Your task to perform on an android device: Turn on the flashlight Image 0: 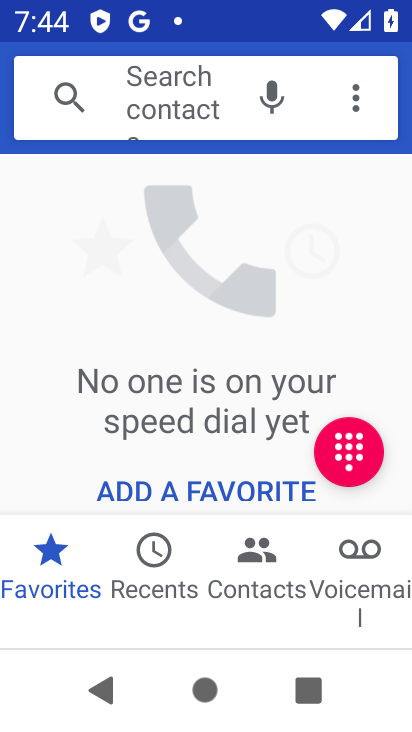
Step 0: press home button
Your task to perform on an android device: Turn on the flashlight Image 1: 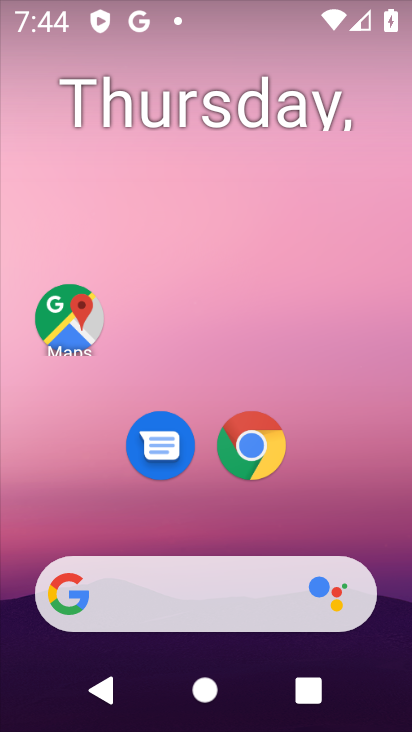
Step 1: drag from (372, 532) to (345, 213)
Your task to perform on an android device: Turn on the flashlight Image 2: 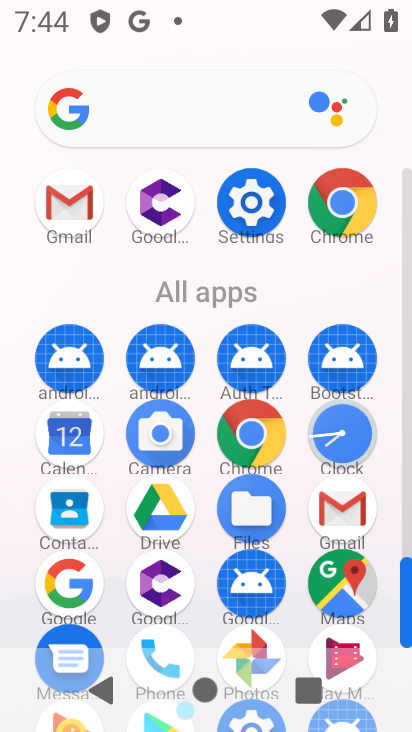
Step 2: click (259, 212)
Your task to perform on an android device: Turn on the flashlight Image 3: 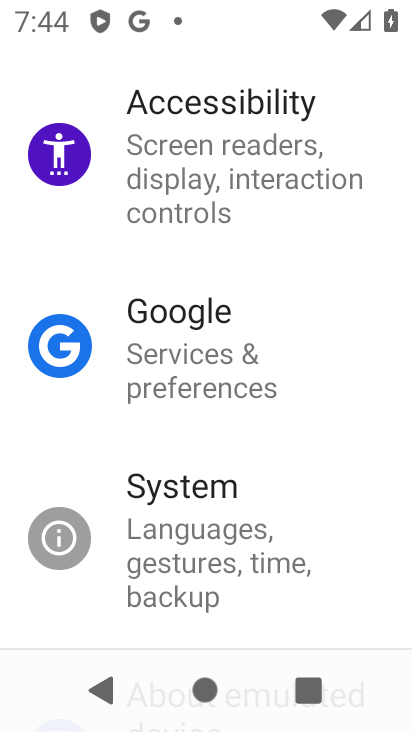
Step 3: drag from (283, 185) to (281, 557)
Your task to perform on an android device: Turn on the flashlight Image 4: 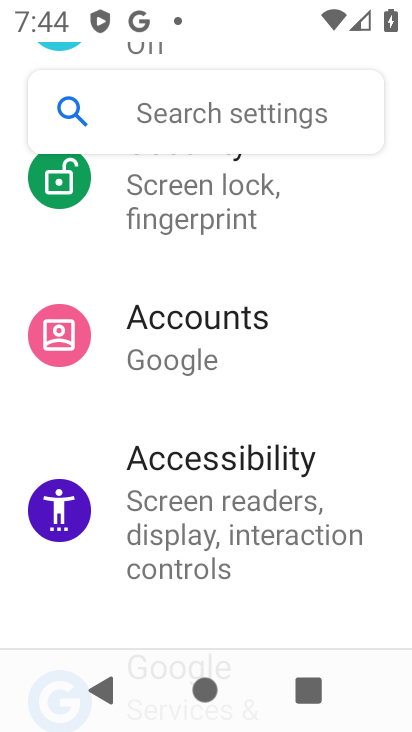
Step 4: click (223, 121)
Your task to perform on an android device: Turn on the flashlight Image 5: 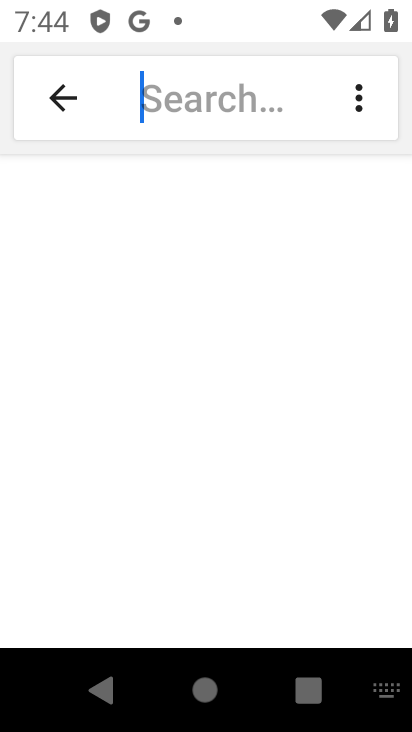
Step 5: type "flashlight"
Your task to perform on an android device: Turn on the flashlight Image 6: 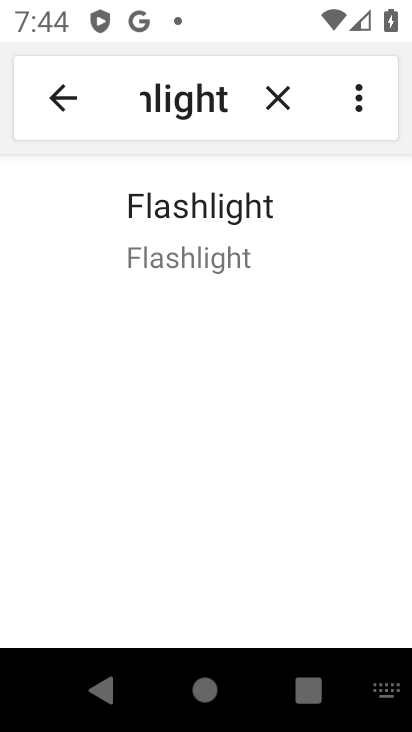
Step 6: click (126, 216)
Your task to perform on an android device: Turn on the flashlight Image 7: 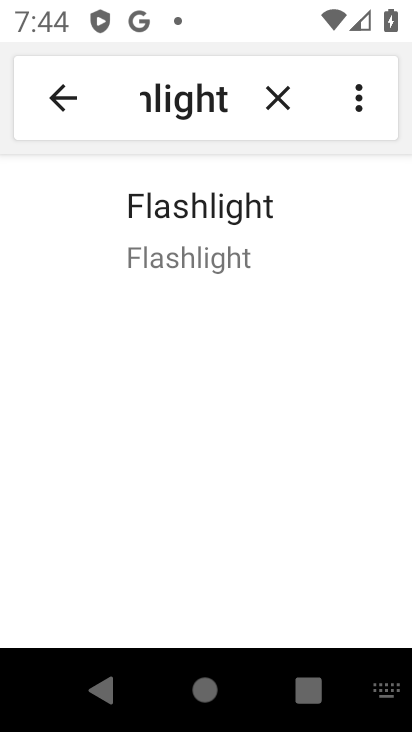
Step 7: task complete